Your task to perform on an android device: Open CNN.com Image 0: 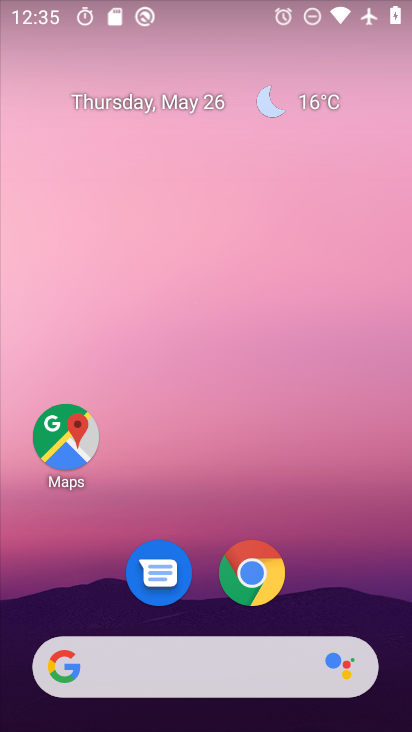
Step 0: click (251, 585)
Your task to perform on an android device: Open CNN.com Image 1: 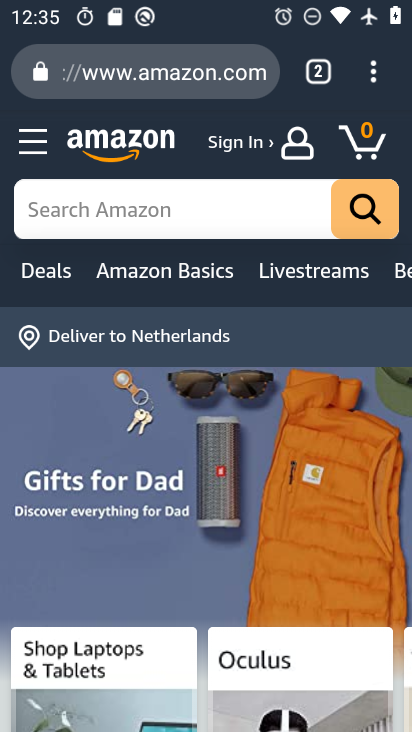
Step 1: click (118, 78)
Your task to perform on an android device: Open CNN.com Image 2: 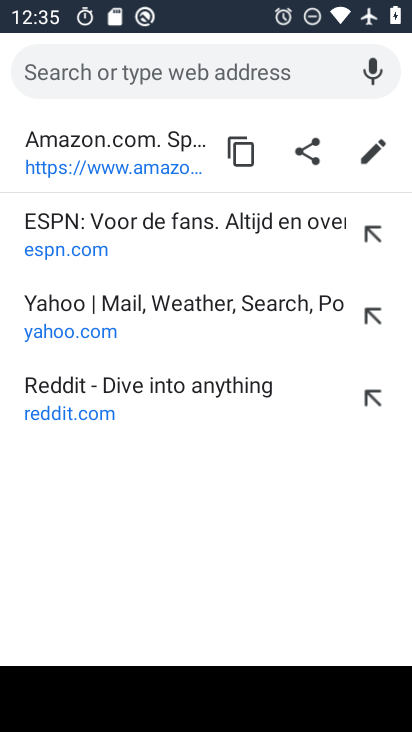
Step 2: type "cnn.com"
Your task to perform on an android device: Open CNN.com Image 3: 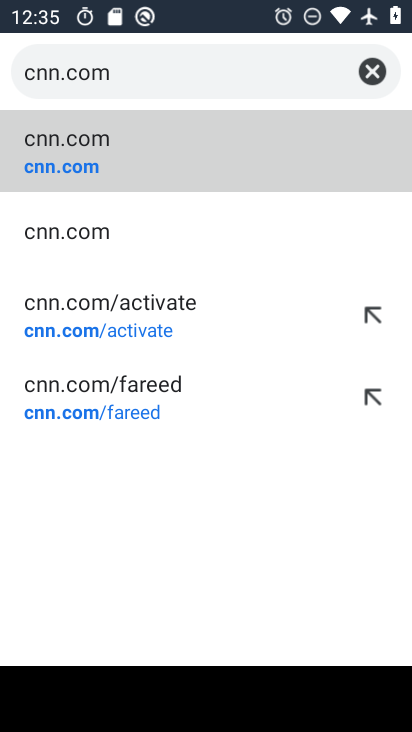
Step 3: click (85, 175)
Your task to perform on an android device: Open CNN.com Image 4: 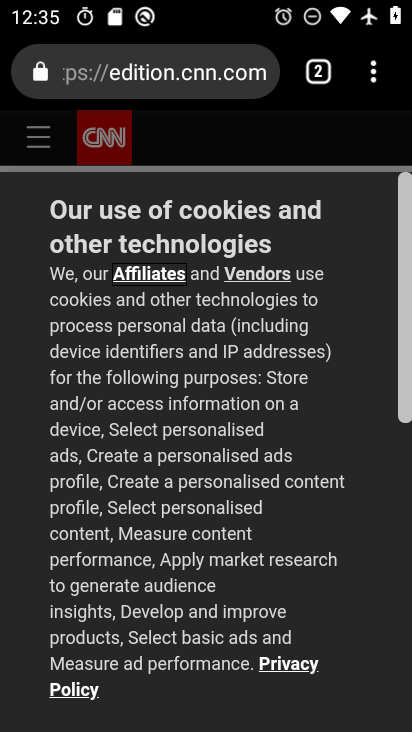
Step 4: task complete